Your task to perform on an android device: visit the assistant section in the google photos Image 0: 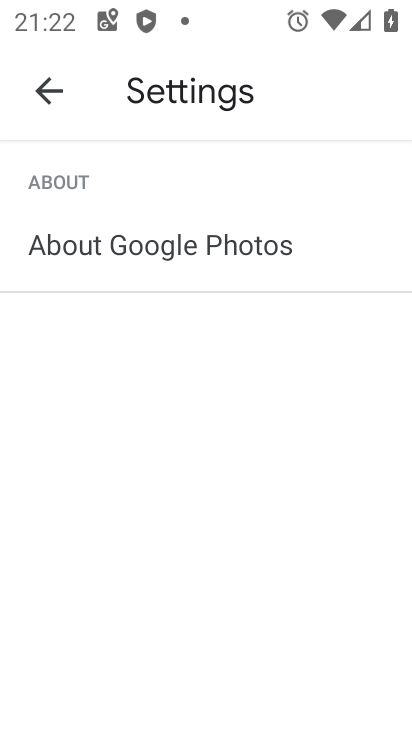
Step 0: press home button
Your task to perform on an android device: visit the assistant section in the google photos Image 1: 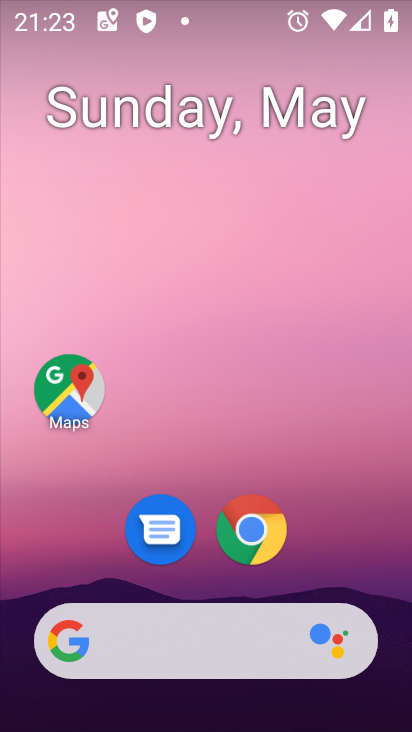
Step 1: drag from (353, 605) to (357, 0)
Your task to perform on an android device: visit the assistant section in the google photos Image 2: 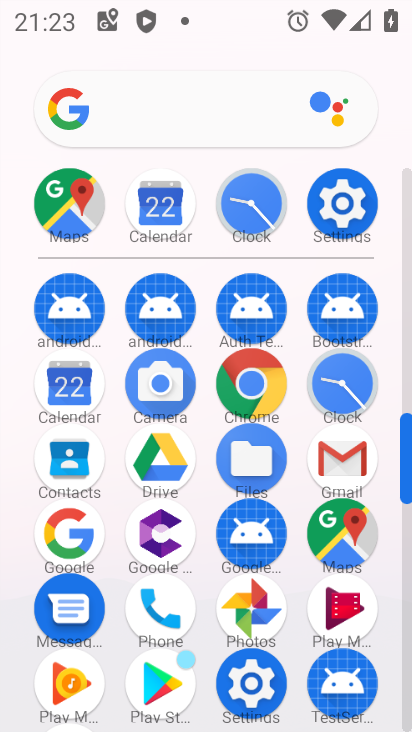
Step 2: click (248, 609)
Your task to perform on an android device: visit the assistant section in the google photos Image 3: 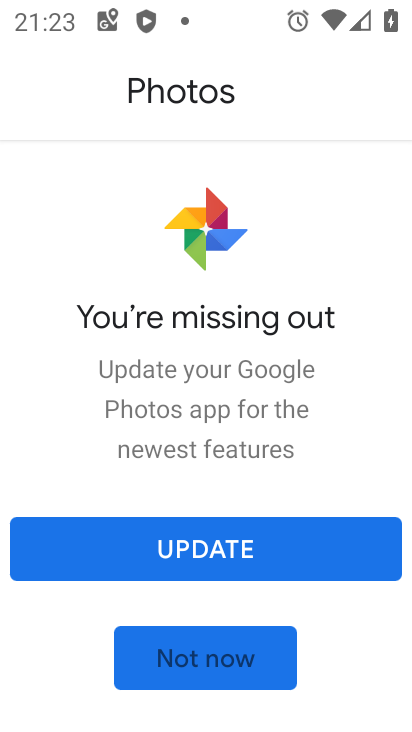
Step 3: click (200, 671)
Your task to perform on an android device: visit the assistant section in the google photos Image 4: 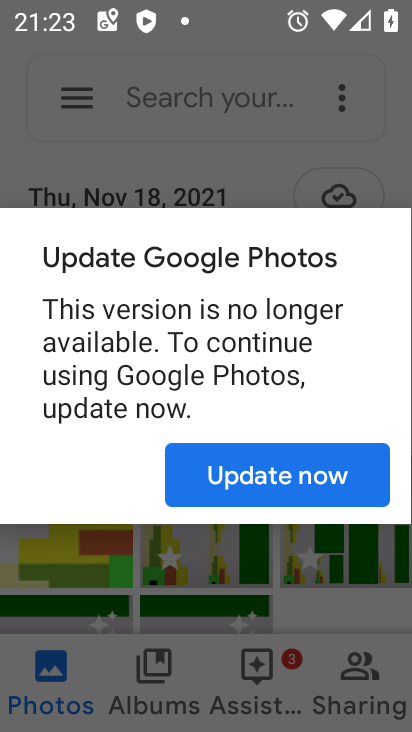
Step 4: click (256, 470)
Your task to perform on an android device: visit the assistant section in the google photos Image 5: 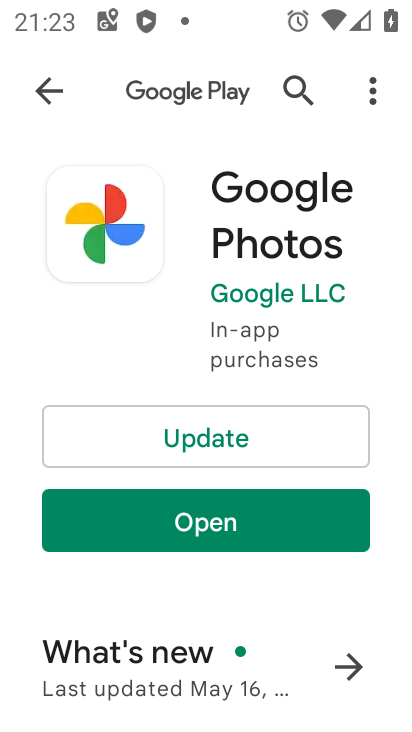
Step 5: click (208, 533)
Your task to perform on an android device: visit the assistant section in the google photos Image 6: 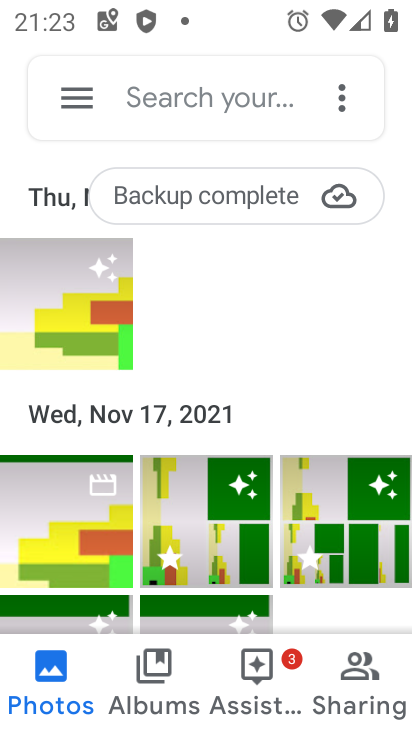
Step 6: click (250, 696)
Your task to perform on an android device: visit the assistant section in the google photos Image 7: 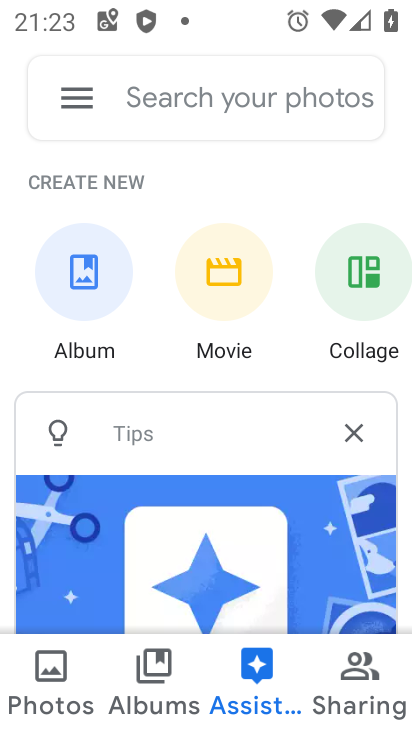
Step 7: task complete